Your task to perform on an android device: turn on location history Image 0: 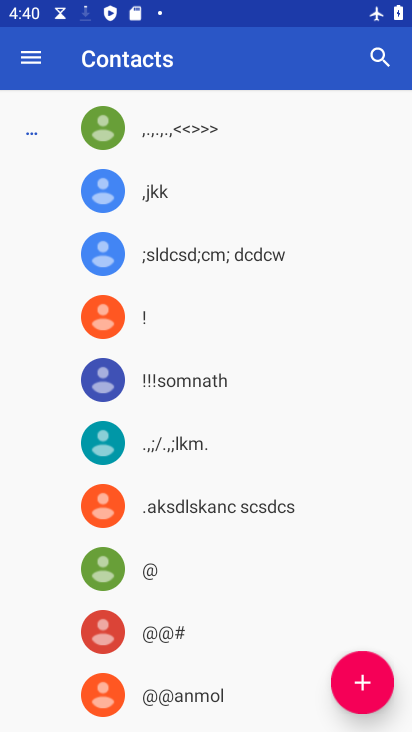
Step 0: press home button
Your task to perform on an android device: turn on location history Image 1: 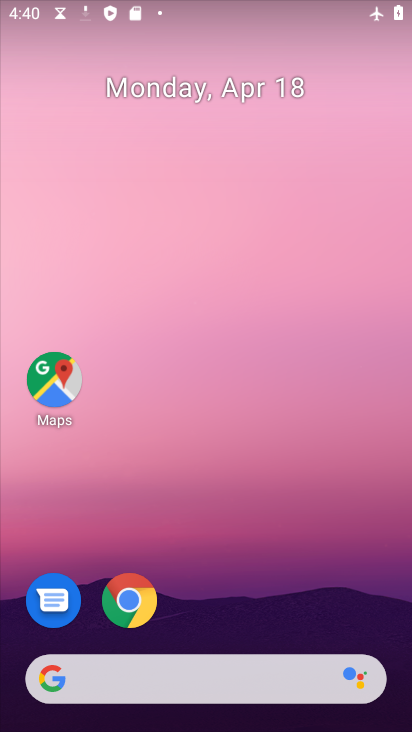
Step 1: drag from (245, 599) to (347, 188)
Your task to perform on an android device: turn on location history Image 2: 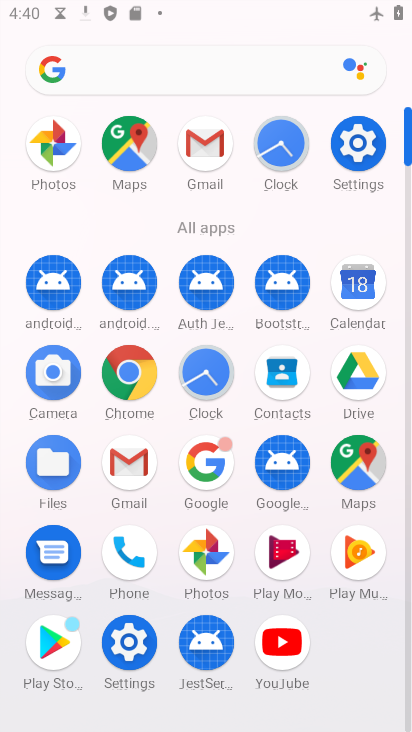
Step 2: click (354, 219)
Your task to perform on an android device: turn on location history Image 3: 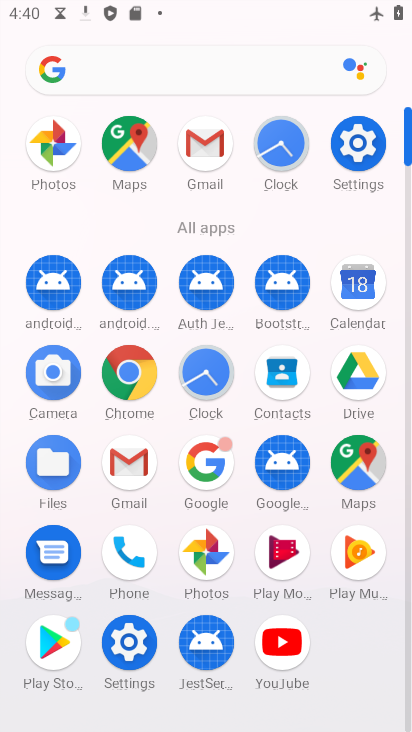
Step 3: click (367, 171)
Your task to perform on an android device: turn on location history Image 4: 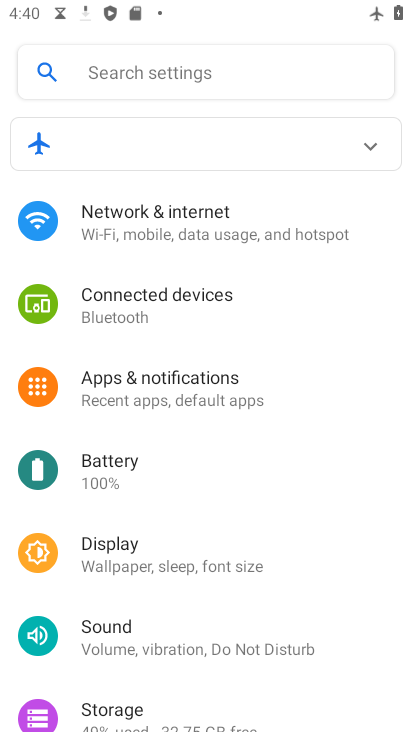
Step 4: drag from (132, 669) to (278, 111)
Your task to perform on an android device: turn on location history Image 5: 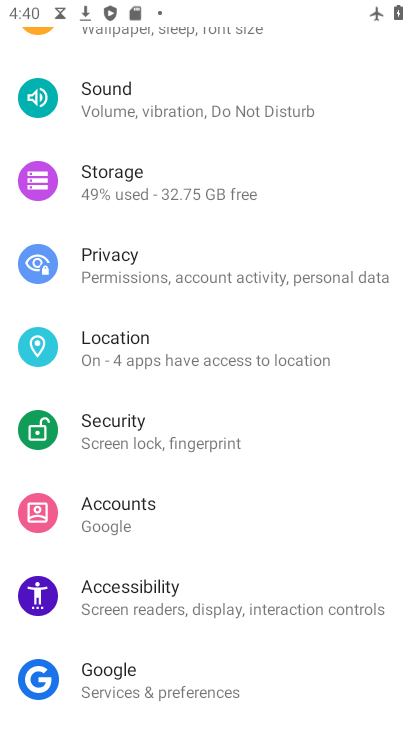
Step 5: click (169, 365)
Your task to perform on an android device: turn on location history Image 6: 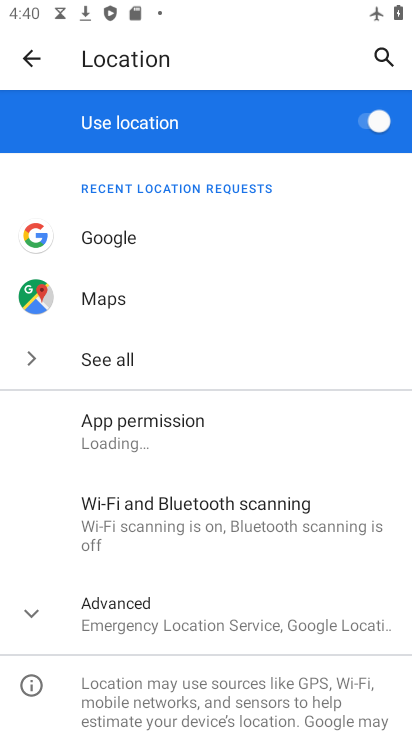
Step 6: click (163, 617)
Your task to perform on an android device: turn on location history Image 7: 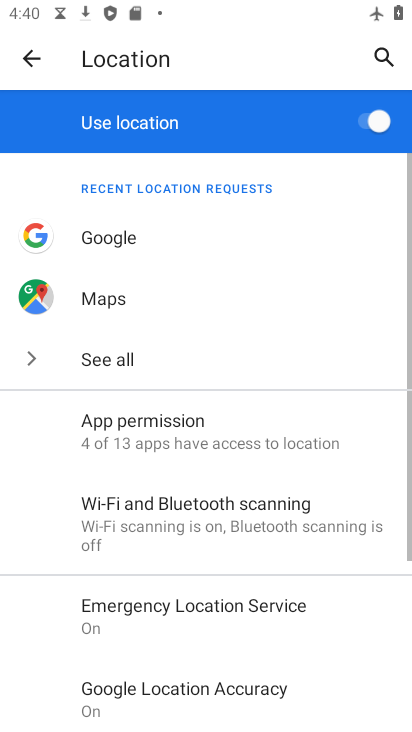
Step 7: drag from (202, 662) to (310, 323)
Your task to perform on an android device: turn on location history Image 8: 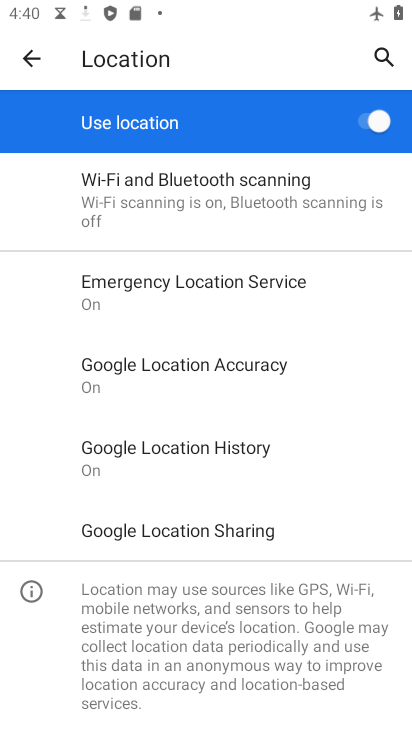
Step 8: click (214, 456)
Your task to perform on an android device: turn on location history Image 9: 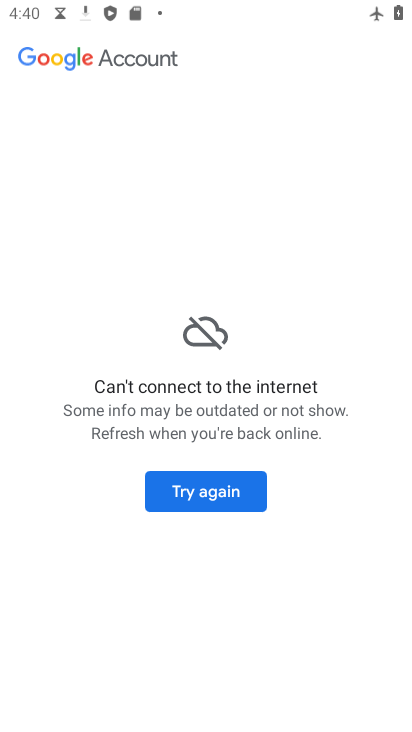
Step 9: task complete